Your task to perform on an android device: refresh tabs in the chrome app Image 0: 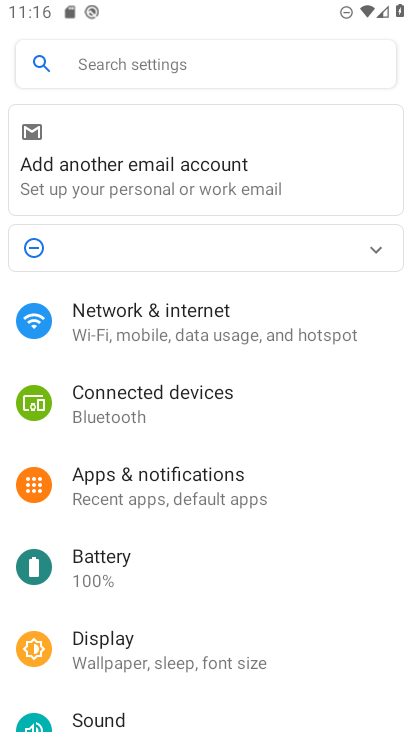
Step 0: press home button
Your task to perform on an android device: refresh tabs in the chrome app Image 1: 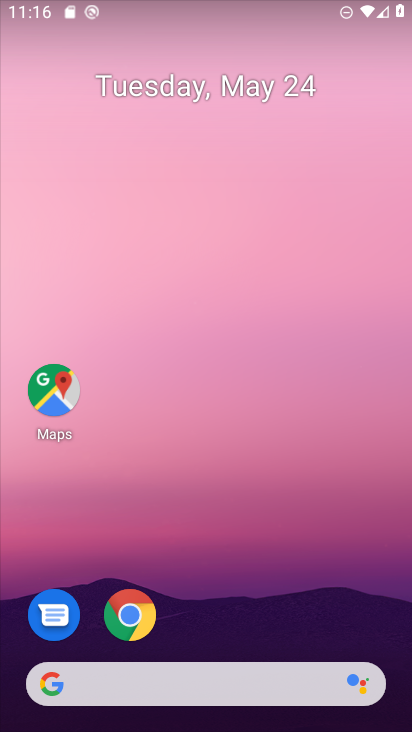
Step 1: drag from (211, 696) to (288, 2)
Your task to perform on an android device: refresh tabs in the chrome app Image 2: 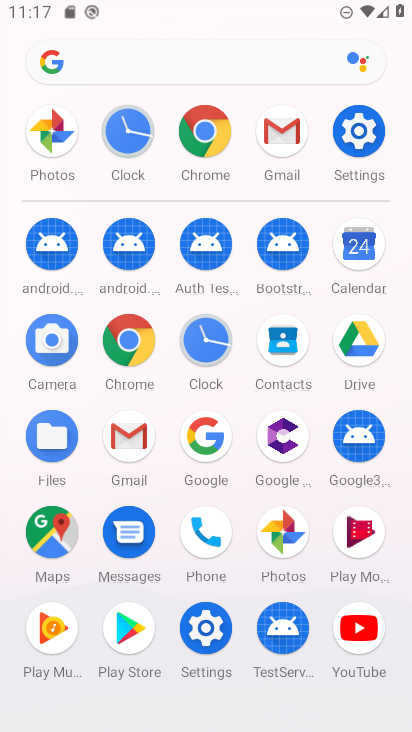
Step 2: click (210, 138)
Your task to perform on an android device: refresh tabs in the chrome app Image 3: 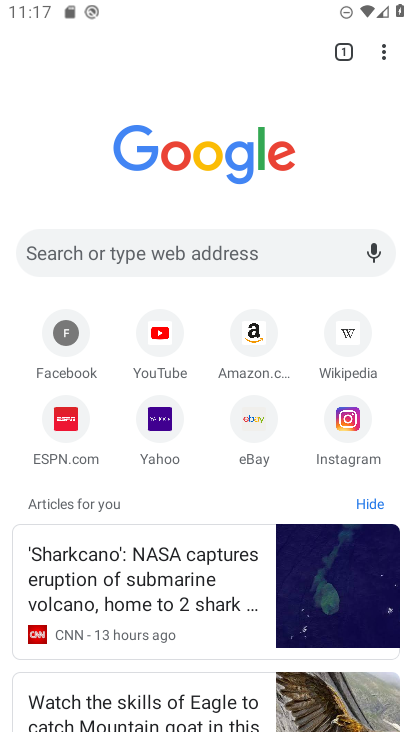
Step 3: click (384, 53)
Your task to perform on an android device: refresh tabs in the chrome app Image 4: 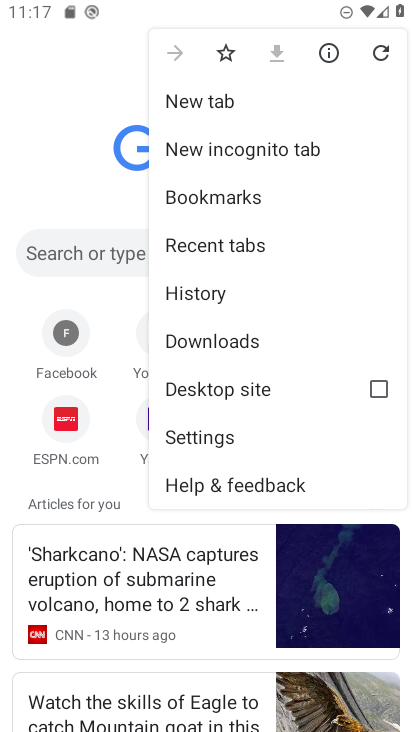
Step 4: click (380, 47)
Your task to perform on an android device: refresh tabs in the chrome app Image 5: 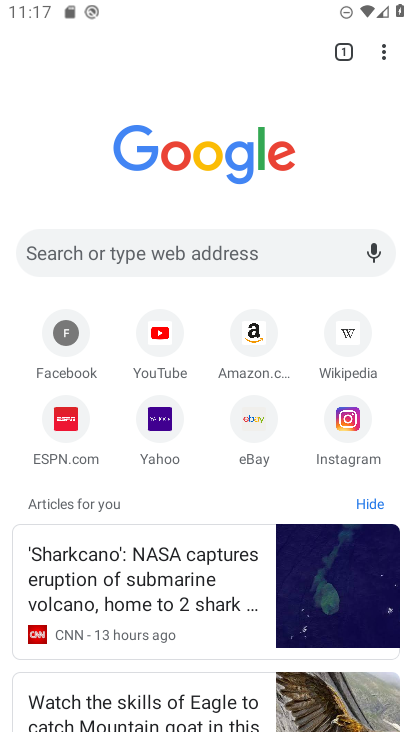
Step 5: task complete